Your task to perform on an android device: search for starred emails in the gmail app Image 0: 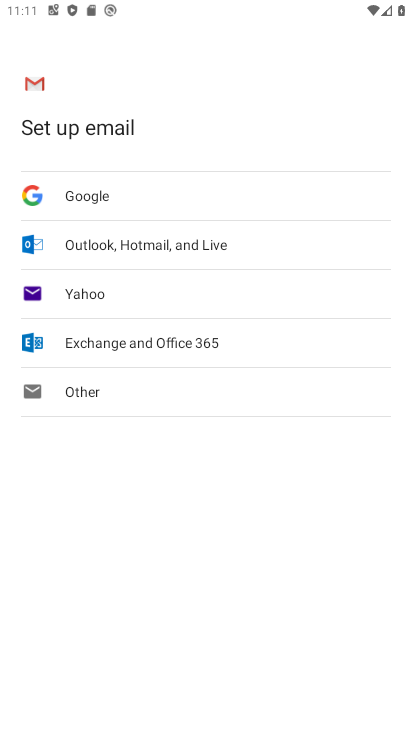
Step 0: press home button
Your task to perform on an android device: search for starred emails in the gmail app Image 1: 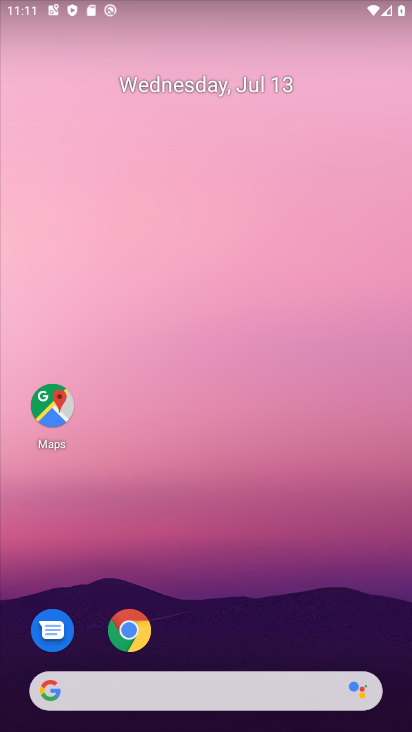
Step 1: drag from (333, 624) to (353, 205)
Your task to perform on an android device: search for starred emails in the gmail app Image 2: 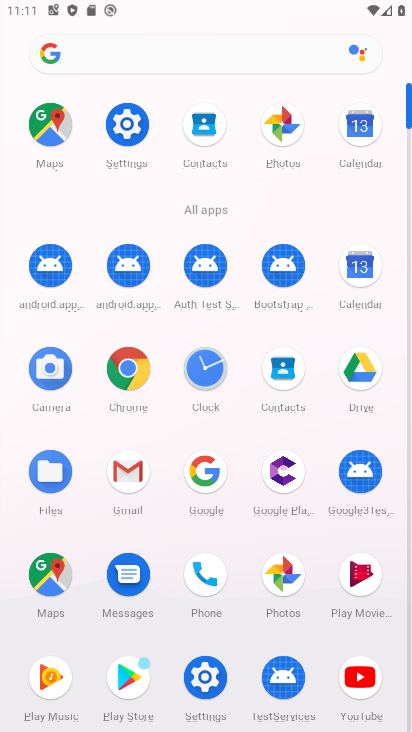
Step 2: click (129, 477)
Your task to perform on an android device: search for starred emails in the gmail app Image 3: 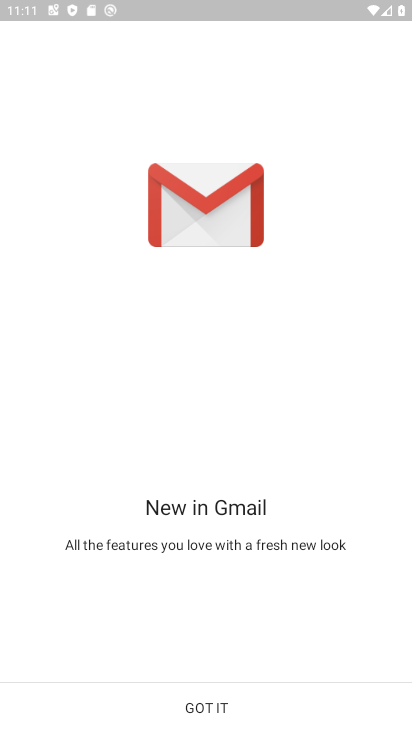
Step 3: click (244, 701)
Your task to perform on an android device: search for starred emails in the gmail app Image 4: 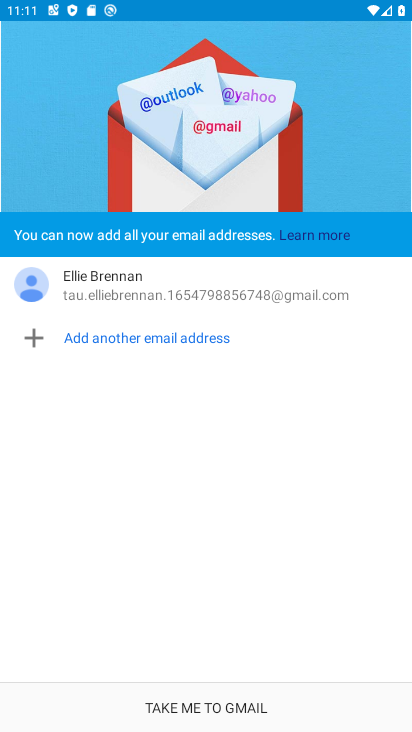
Step 4: click (222, 713)
Your task to perform on an android device: search for starred emails in the gmail app Image 5: 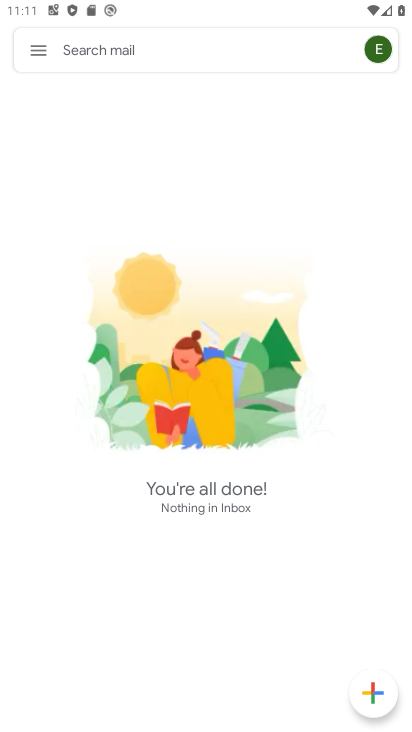
Step 5: click (33, 43)
Your task to perform on an android device: search for starred emails in the gmail app Image 6: 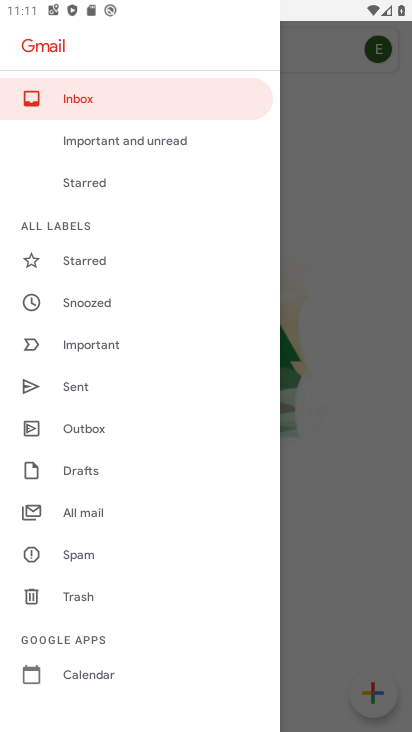
Step 6: drag from (208, 482) to (213, 379)
Your task to perform on an android device: search for starred emails in the gmail app Image 7: 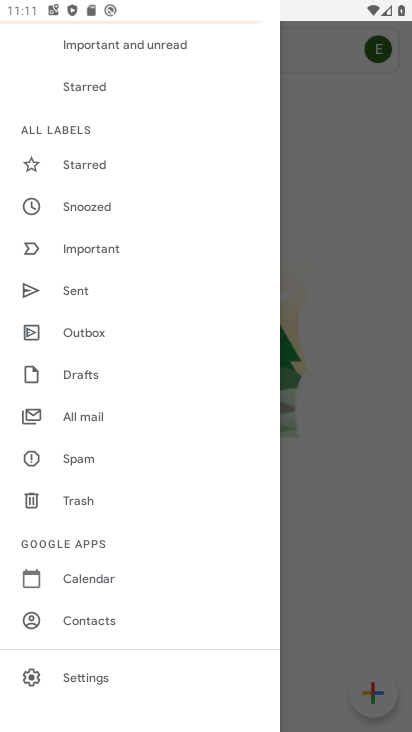
Step 7: drag from (216, 565) to (213, 411)
Your task to perform on an android device: search for starred emails in the gmail app Image 8: 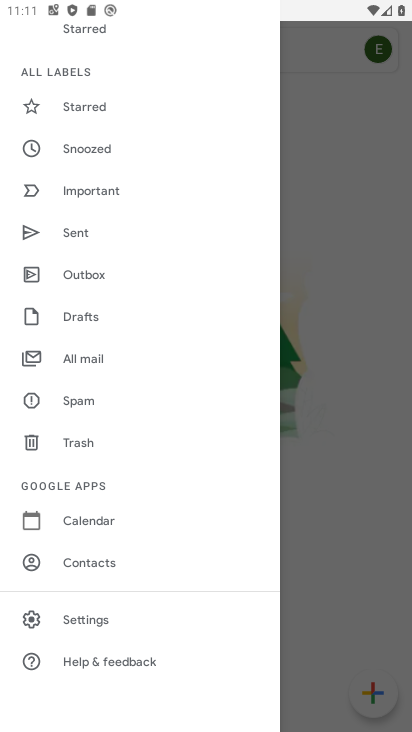
Step 8: drag from (216, 613) to (220, 482)
Your task to perform on an android device: search for starred emails in the gmail app Image 9: 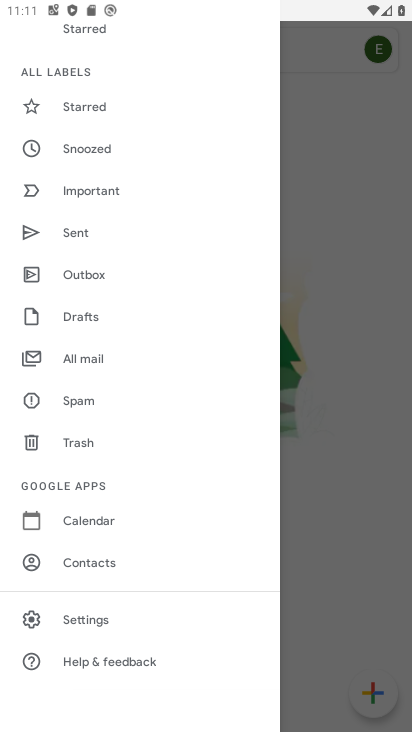
Step 9: drag from (203, 336) to (201, 411)
Your task to perform on an android device: search for starred emails in the gmail app Image 10: 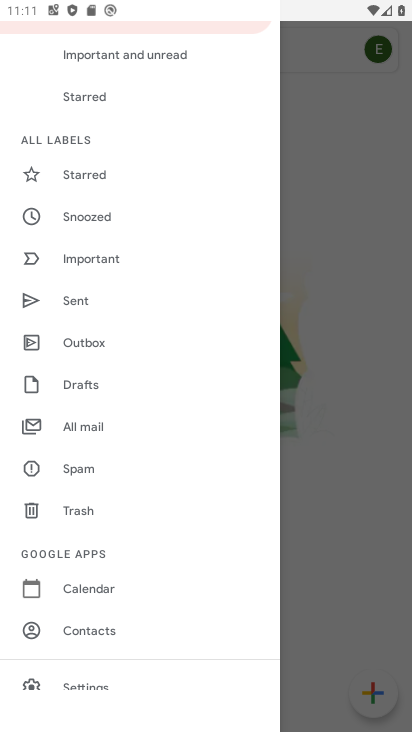
Step 10: drag from (187, 272) to (187, 381)
Your task to perform on an android device: search for starred emails in the gmail app Image 11: 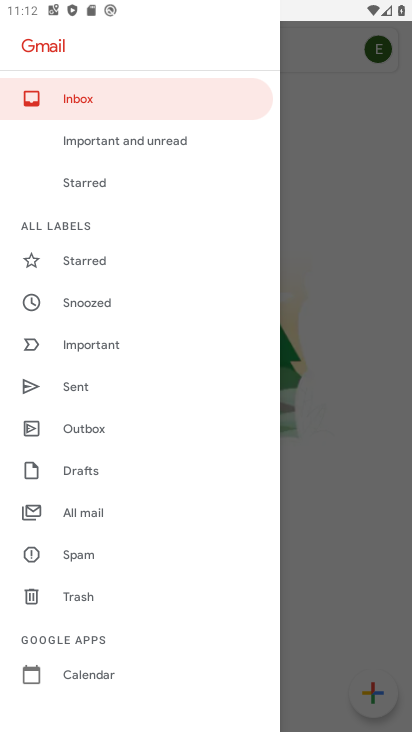
Step 11: click (116, 260)
Your task to perform on an android device: search for starred emails in the gmail app Image 12: 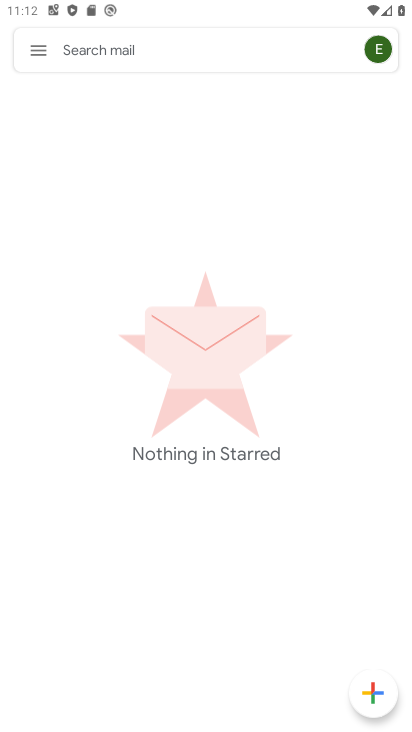
Step 12: task complete